Your task to perform on an android device: Search for vegetarian restaurants on Maps Image 0: 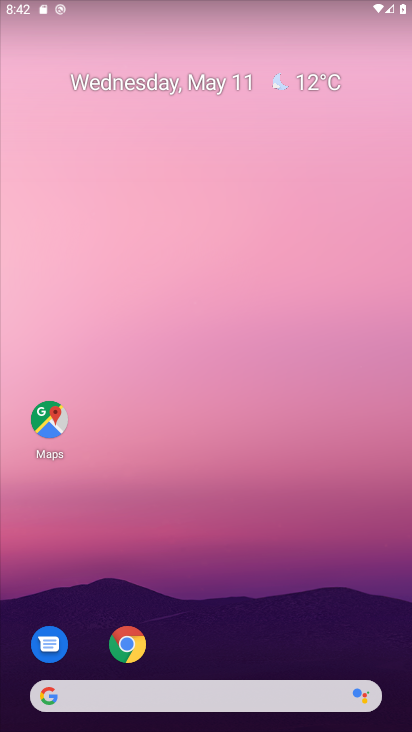
Step 0: click (53, 430)
Your task to perform on an android device: Search for vegetarian restaurants on Maps Image 1: 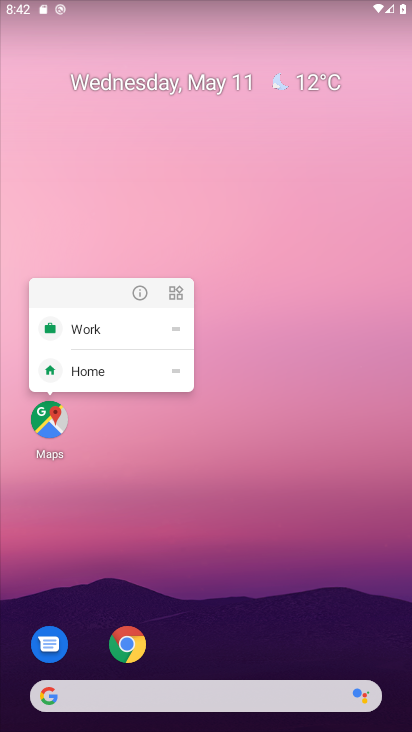
Step 1: click (53, 430)
Your task to perform on an android device: Search for vegetarian restaurants on Maps Image 2: 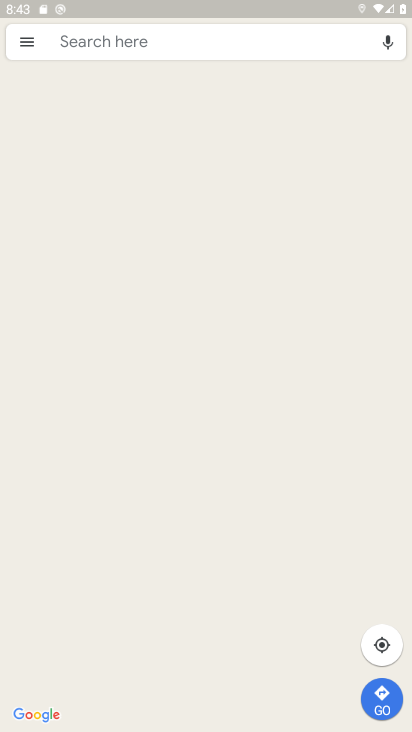
Step 2: click (204, 42)
Your task to perform on an android device: Search for vegetarian restaurants on Maps Image 3: 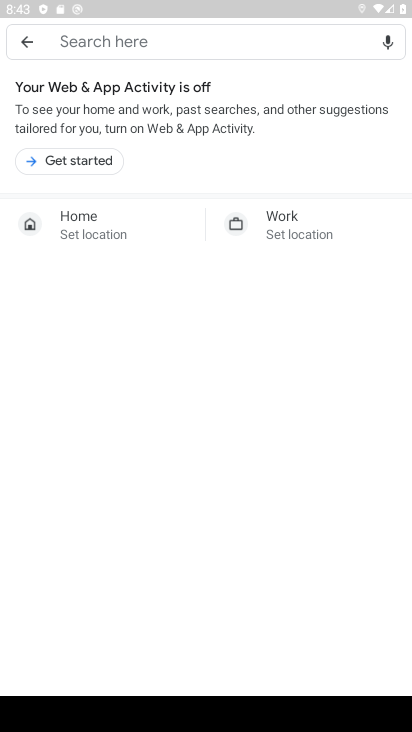
Step 3: click (208, 33)
Your task to perform on an android device: Search for vegetarian restaurants on Maps Image 4: 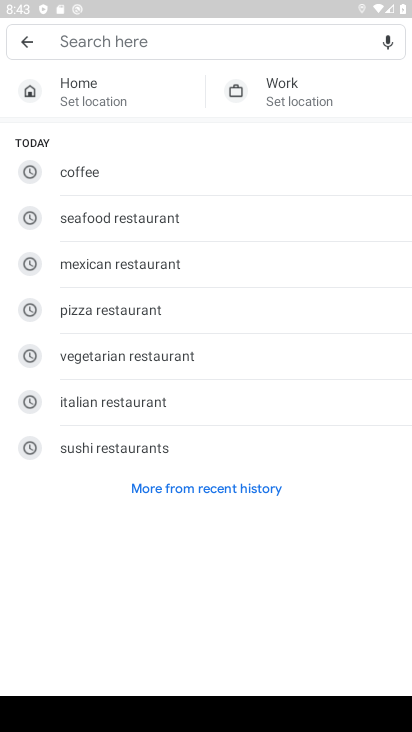
Step 4: click (131, 354)
Your task to perform on an android device: Search for vegetarian restaurants on Maps Image 5: 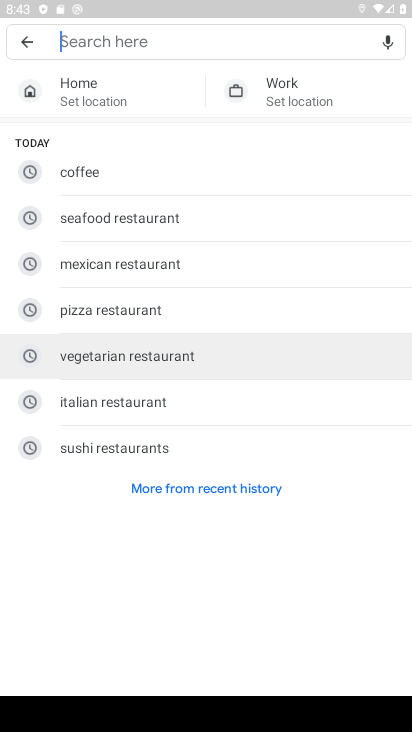
Step 5: click (131, 354)
Your task to perform on an android device: Search for vegetarian restaurants on Maps Image 6: 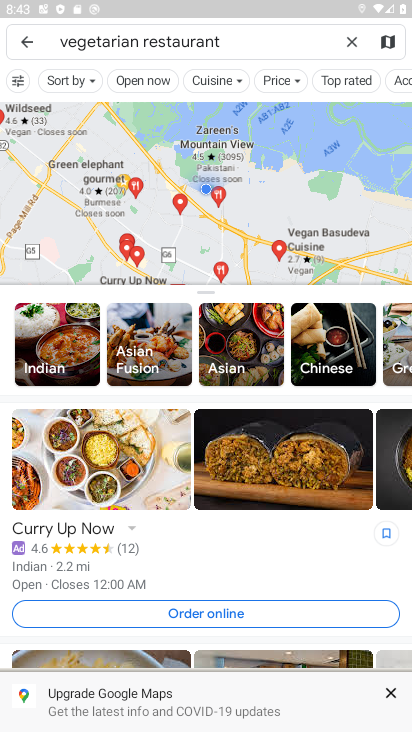
Step 6: task complete